Your task to perform on an android device: Open the stopwatch Image 0: 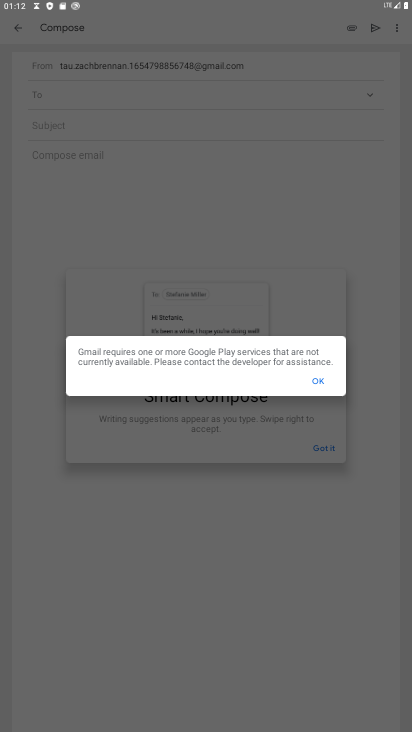
Step 0: press home button
Your task to perform on an android device: Open the stopwatch Image 1: 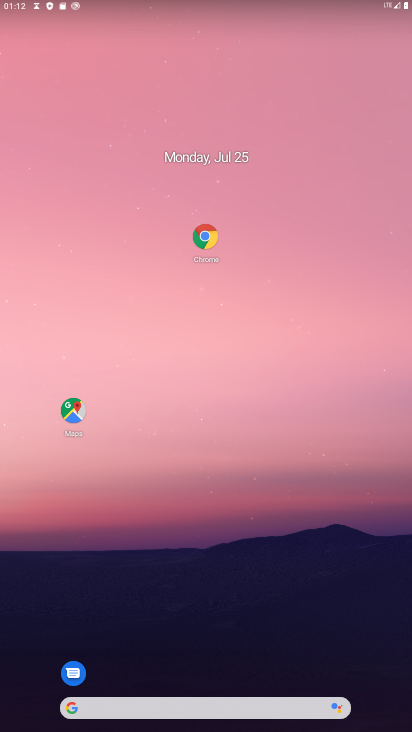
Step 1: drag from (234, 706) to (302, 172)
Your task to perform on an android device: Open the stopwatch Image 2: 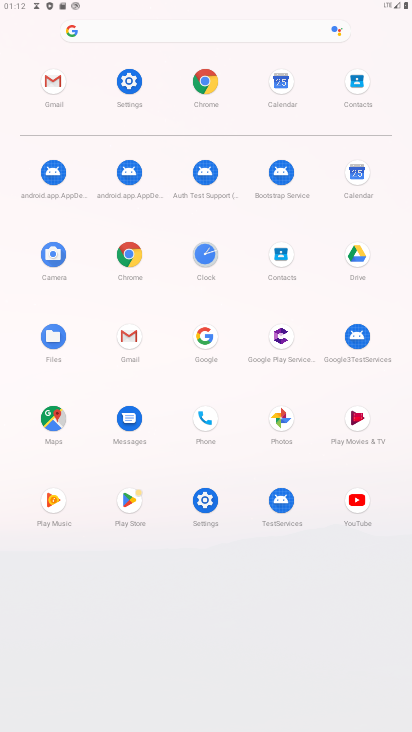
Step 2: click (212, 256)
Your task to perform on an android device: Open the stopwatch Image 3: 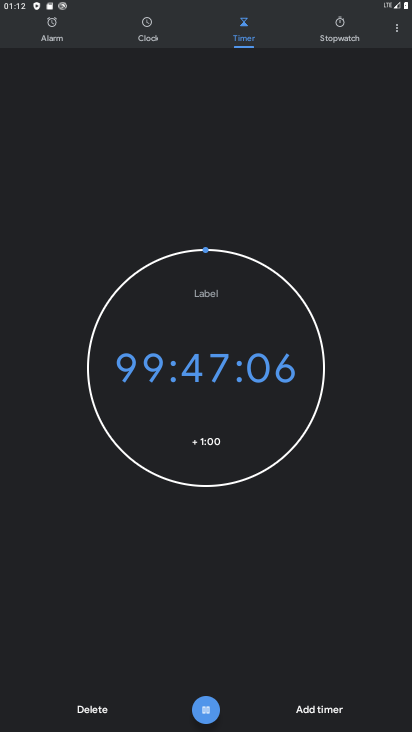
Step 3: click (355, 26)
Your task to perform on an android device: Open the stopwatch Image 4: 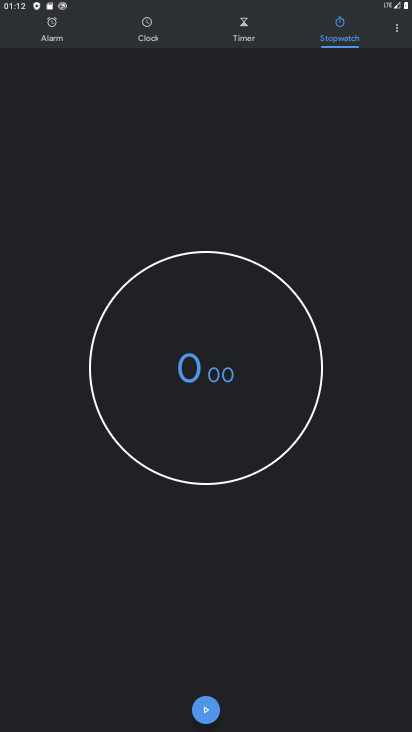
Step 4: click (200, 712)
Your task to perform on an android device: Open the stopwatch Image 5: 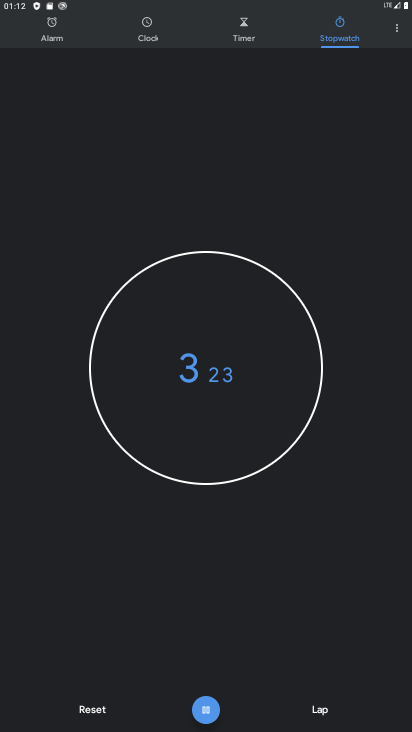
Step 5: task complete